Your task to perform on an android device: make emails show in primary in the gmail app Image 0: 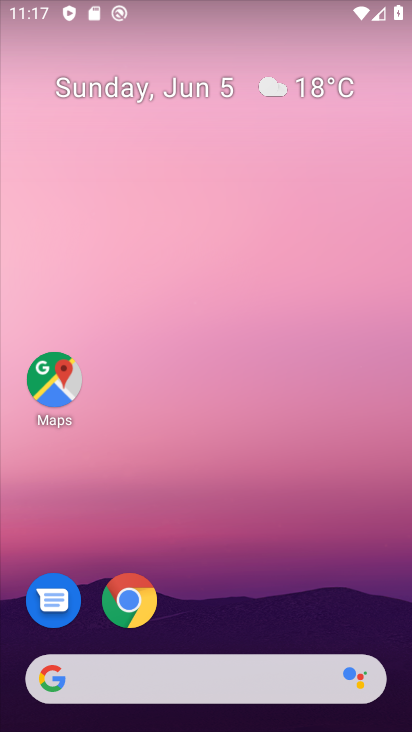
Step 0: click (210, 66)
Your task to perform on an android device: make emails show in primary in the gmail app Image 1: 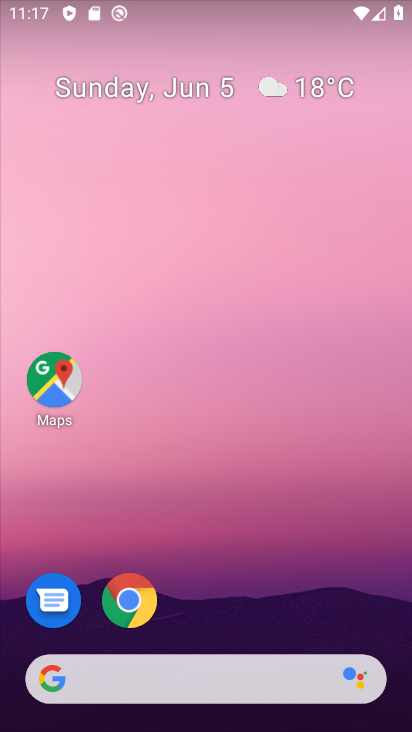
Step 1: click (170, 0)
Your task to perform on an android device: make emails show in primary in the gmail app Image 2: 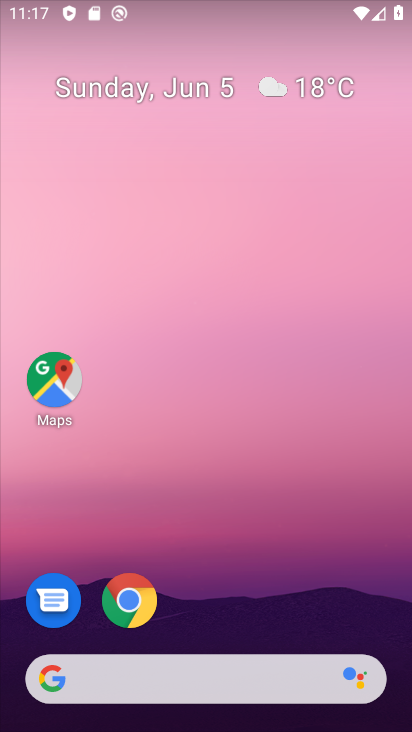
Step 2: drag from (289, 712) to (196, 163)
Your task to perform on an android device: make emails show in primary in the gmail app Image 3: 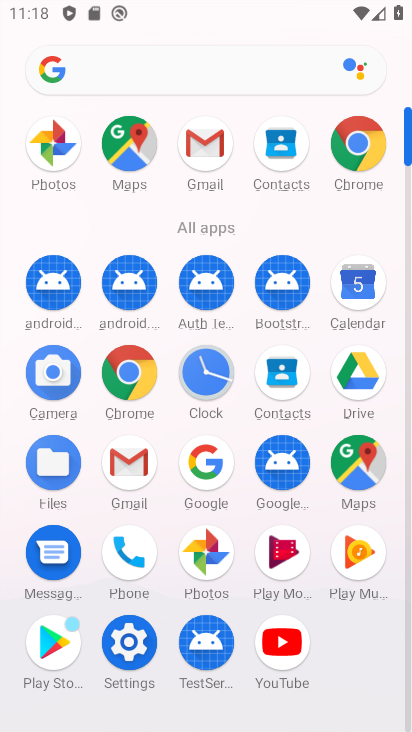
Step 3: click (125, 472)
Your task to perform on an android device: make emails show in primary in the gmail app Image 4: 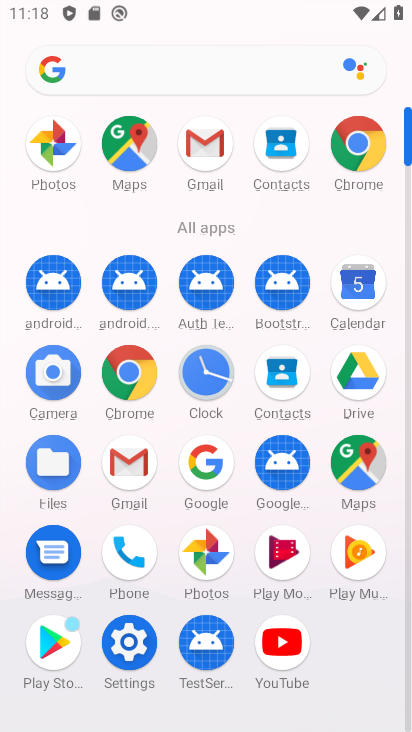
Step 4: click (126, 471)
Your task to perform on an android device: make emails show in primary in the gmail app Image 5: 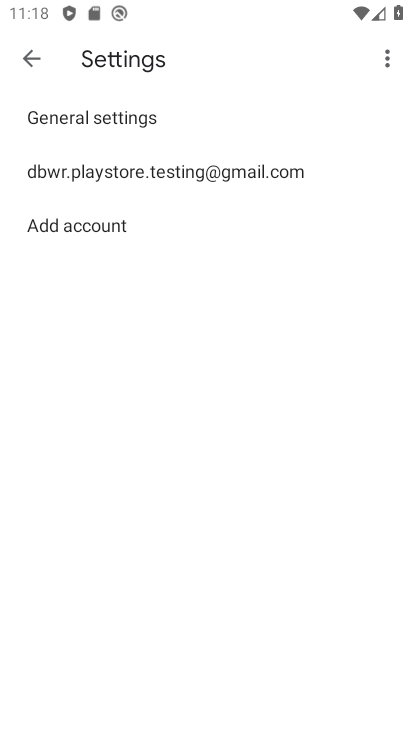
Step 5: click (111, 180)
Your task to perform on an android device: make emails show in primary in the gmail app Image 6: 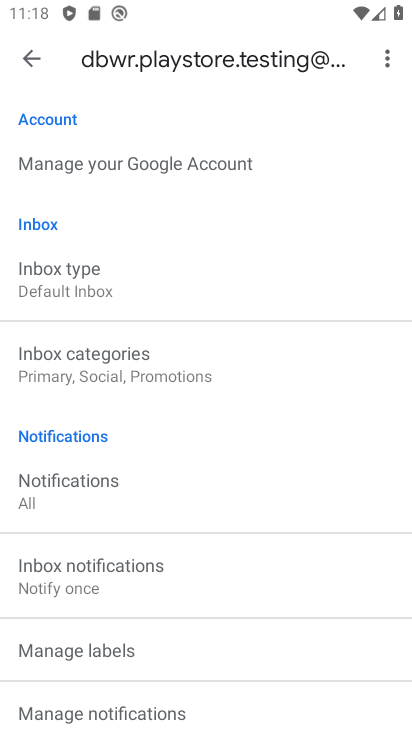
Step 6: task complete